Your task to perform on an android device: turn on the 12-hour format for clock Image 0: 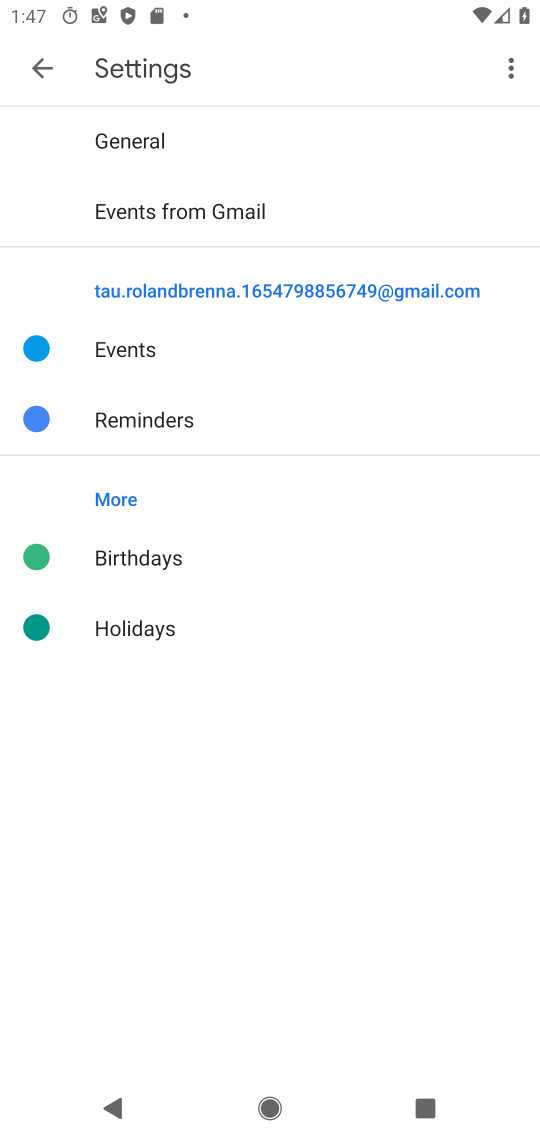
Step 0: press home button
Your task to perform on an android device: turn on the 12-hour format for clock Image 1: 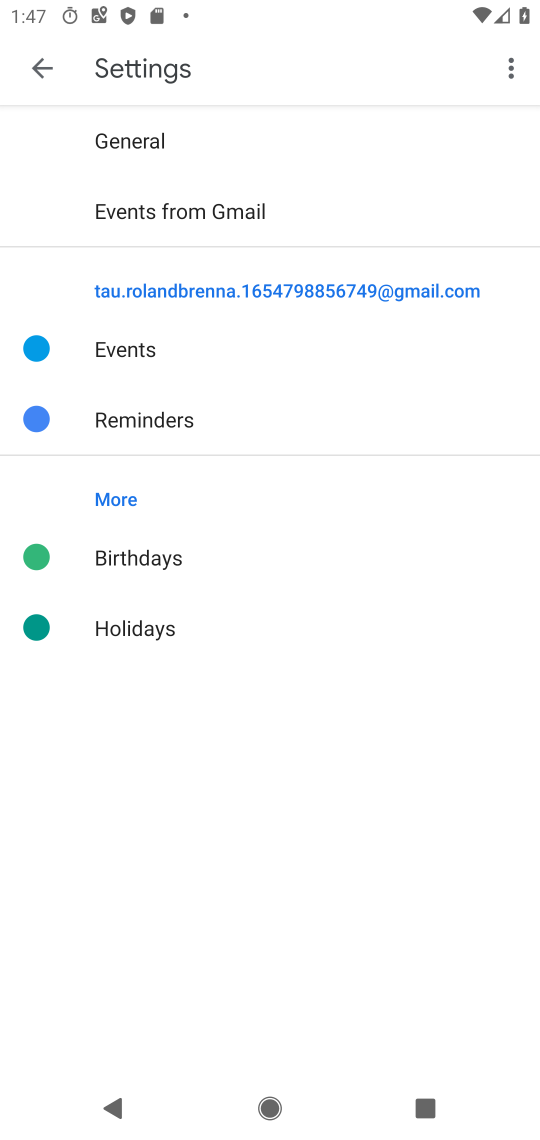
Step 1: press home button
Your task to perform on an android device: turn on the 12-hour format for clock Image 2: 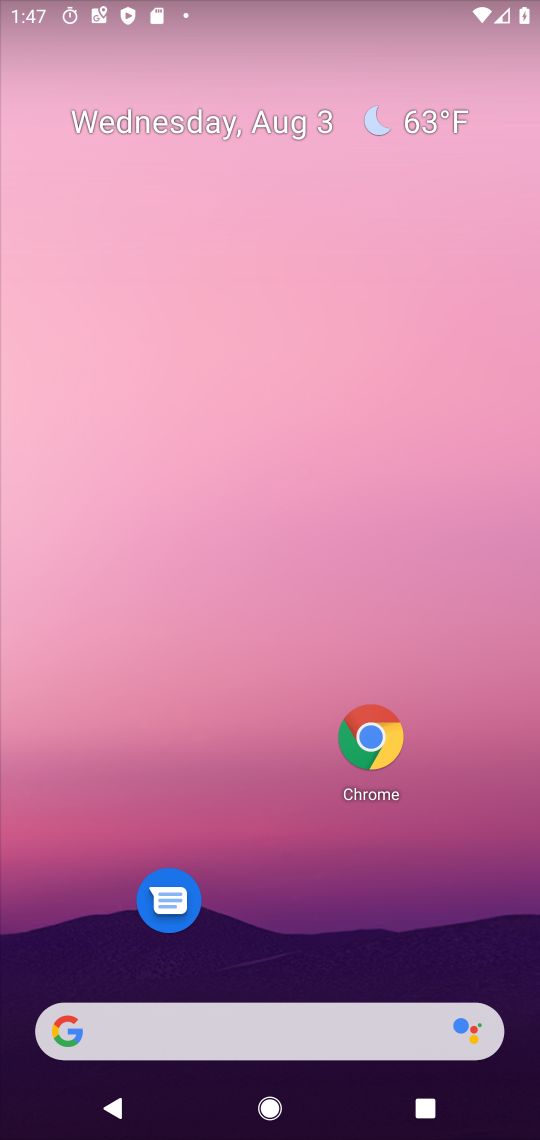
Step 2: drag from (276, 952) to (269, 238)
Your task to perform on an android device: turn on the 12-hour format for clock Image 3: 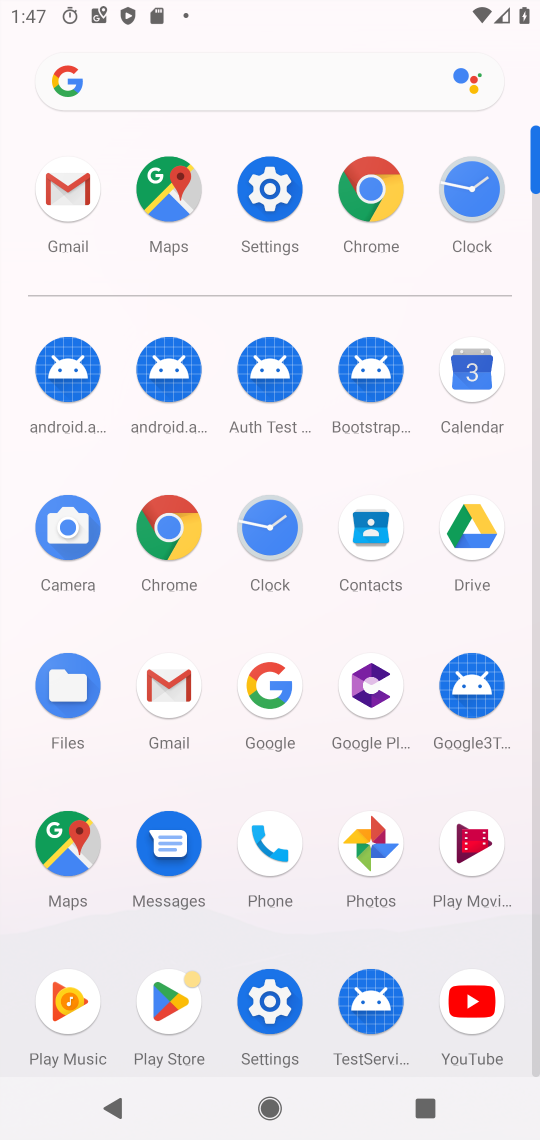
Step 3: click (263, 532)
Your task to perform on an android device: turn on the 12-hour format for clock Image 4: 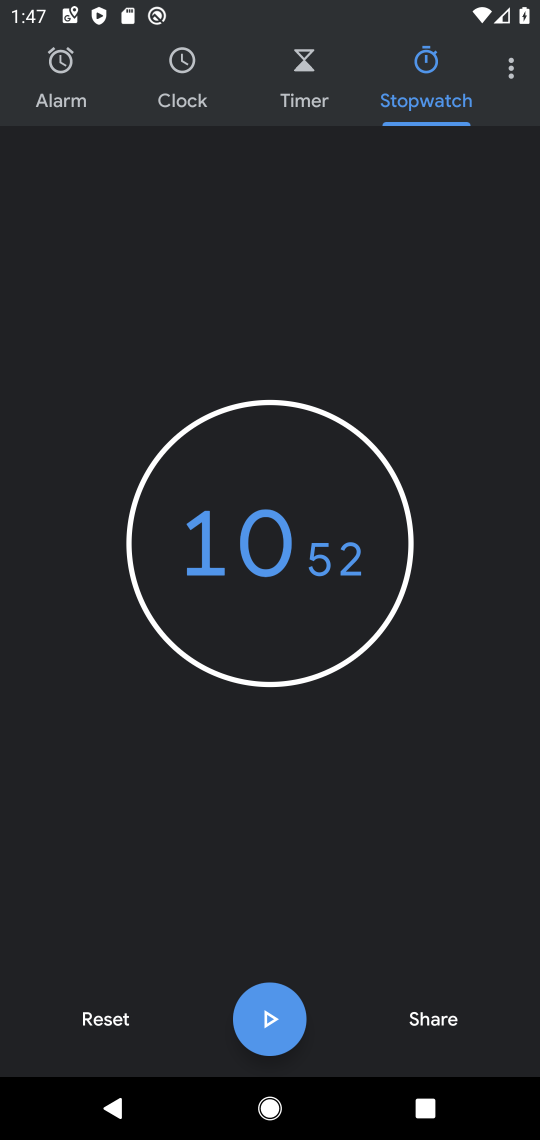
Step 4: click (512, 67)
Your task to perform on an android device: turn on the 12-hour format for clock Image 5: 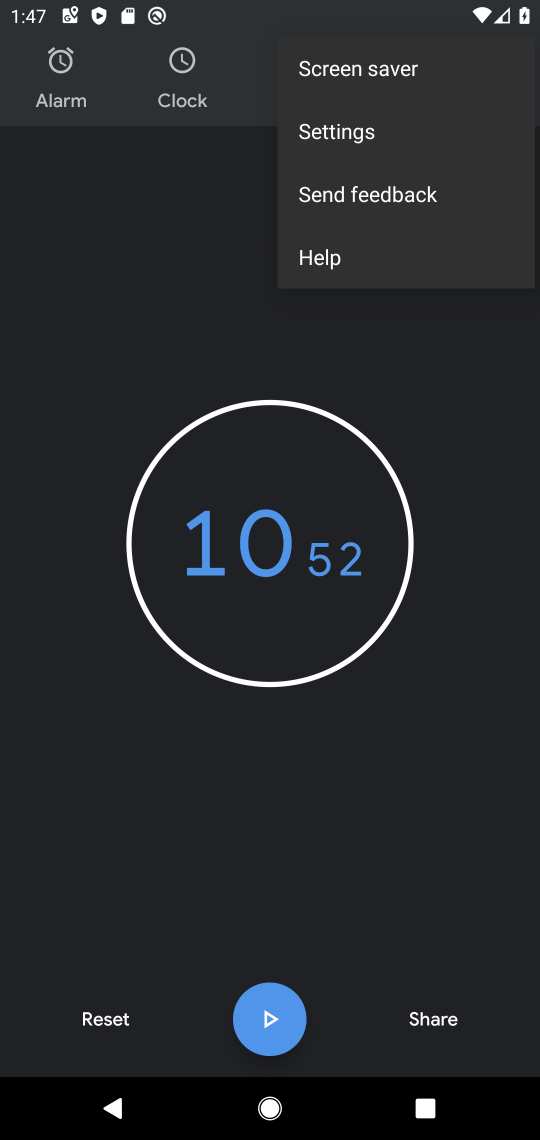
Step 5: click (379, 129)
Your task to perform on an android device: turn on the 12-hour format for clock Image 6: 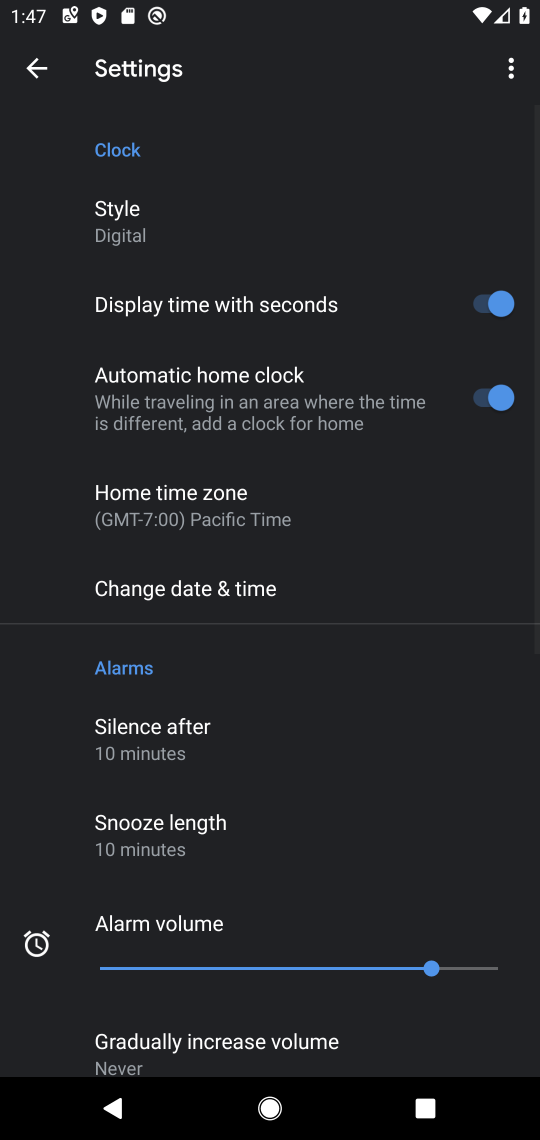
Step 6: click (234, 590)
Your task to perform on an android device: turn on the 12-hour format for clock Image 7: 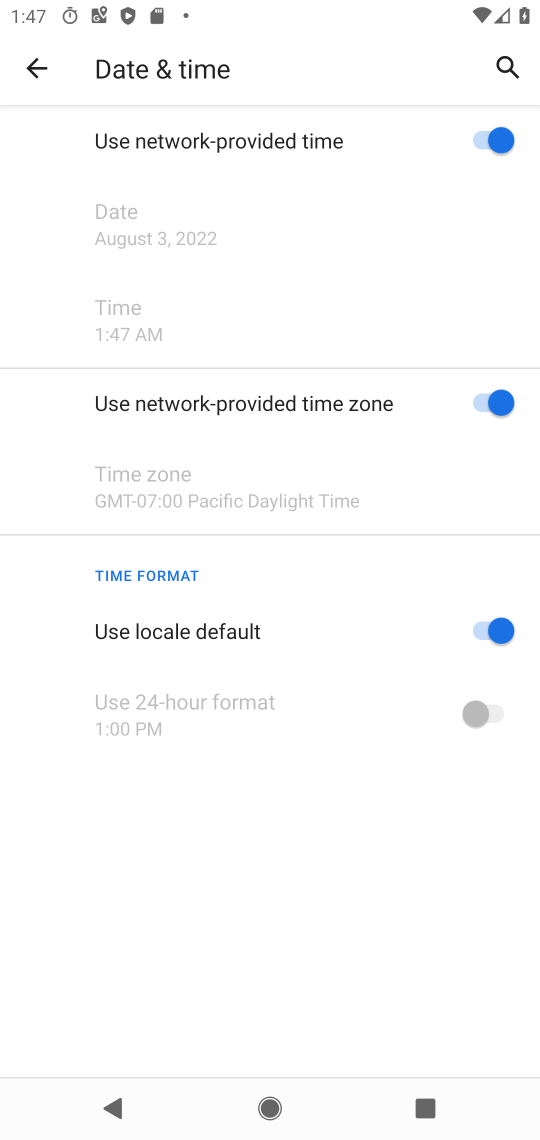
Step 7: task complete